Your task to perform on an android device: find photos in the google photos app Image 0: 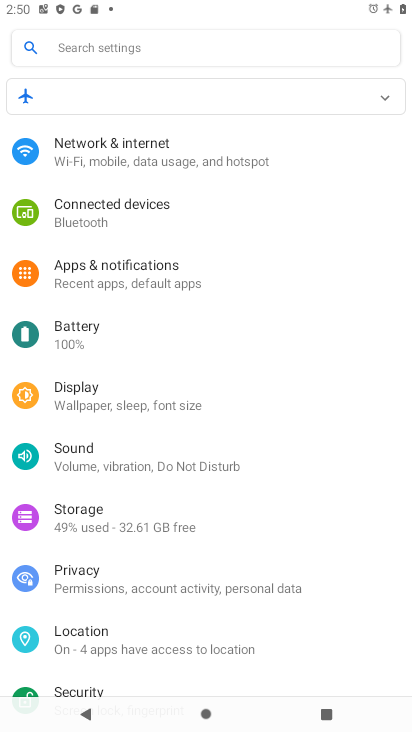
Step 0: press home button
Your task to perform on an android device: find photos in the google photos app Image 1: 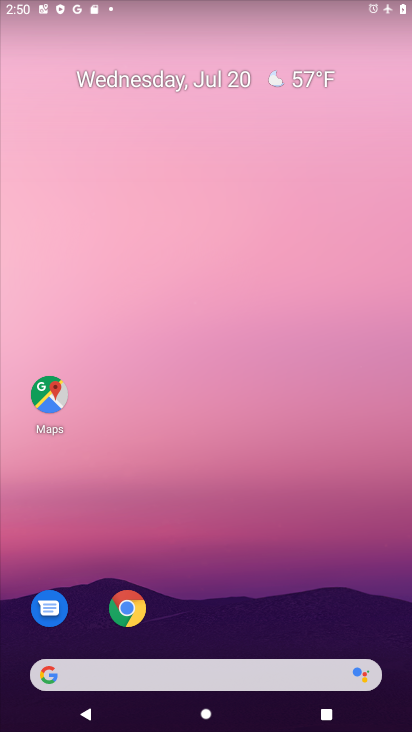
Step 1: drag from (203, 552) to (197, 254)
Your task to perform on an android device: find photos in the google photos app Image 2: 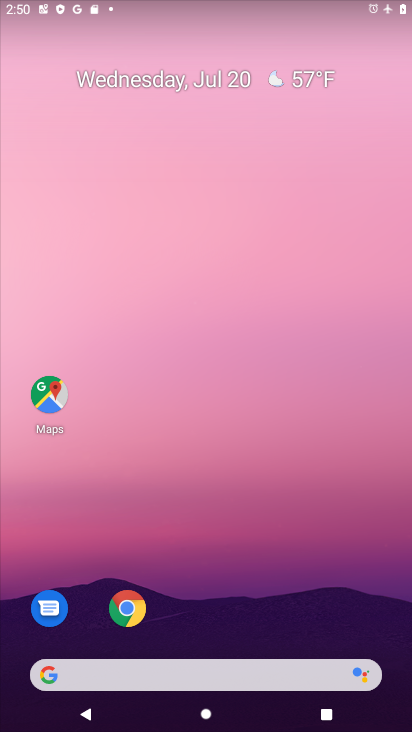
Step 2: drag from (209, 645) to (194, 180)
Your task to perform on an android device: find photos in the google photos app Image 3: 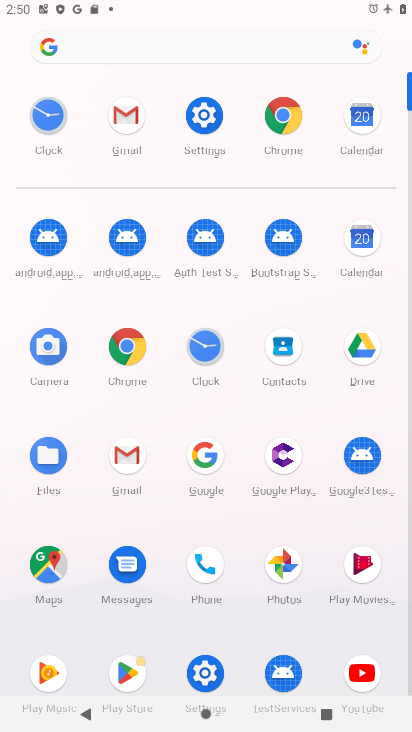
Step 3: click (283, 586)
Your task to perform on an android device: find photos in the google photos app Image 4: 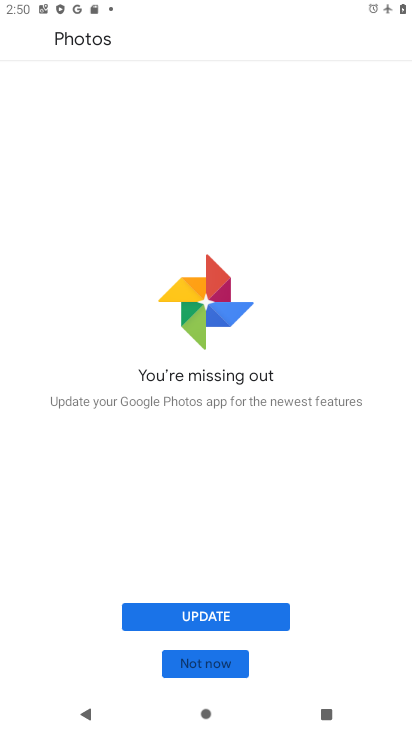
Step 4: click (207, 617)
Your task to perform on an android device: find photos in the google photos app Image 5: 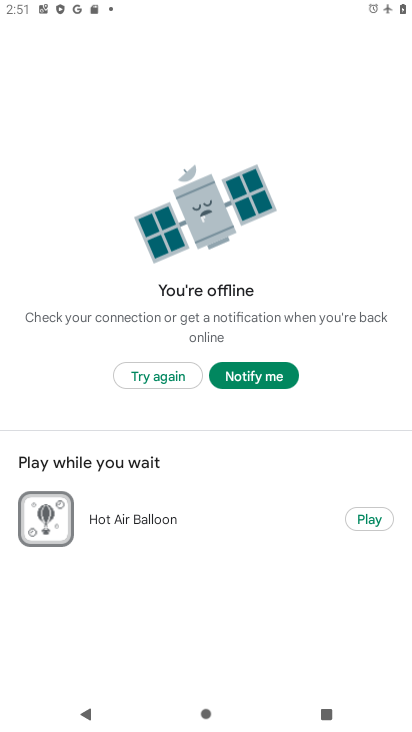
Step 5: task complete